Your task to perform on an android device: see sites visited before in the chrome app Image 0: 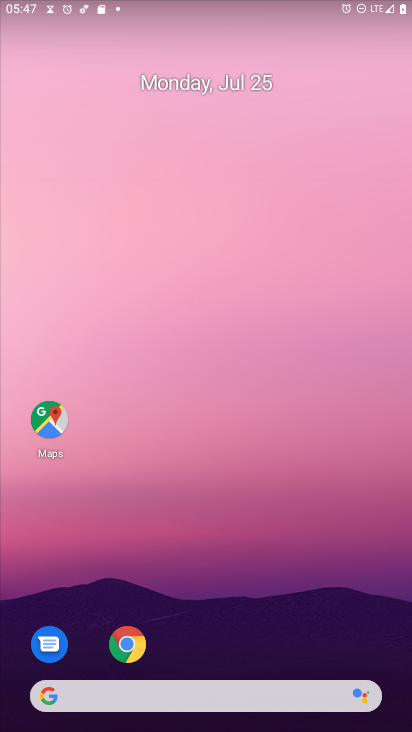
Step 0: press home button
Your task to perform on an android device: see sites visited before in the chrome app Image 1: 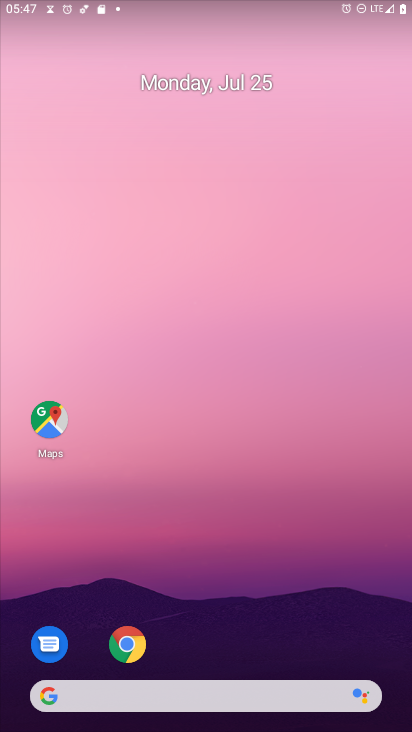
Step 1: drag from (285, 645) to (287, 182)
Your task to perform on an android device: see sites visited before in the chrome app Image 2: 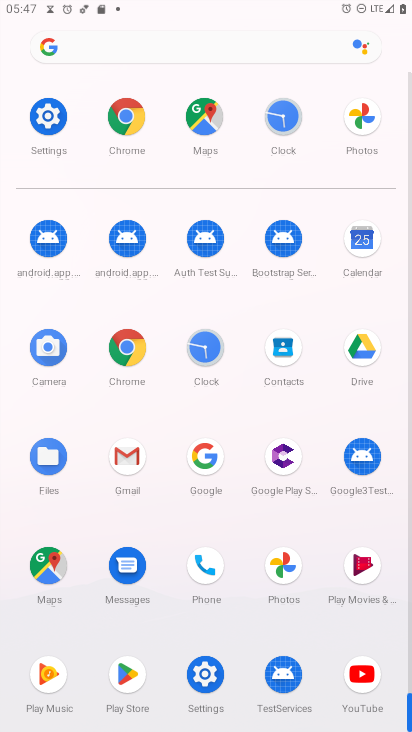
Step 2: click (123, 119)
Your task to perform on an android device: see sites visited before in the chrome app Image 3: 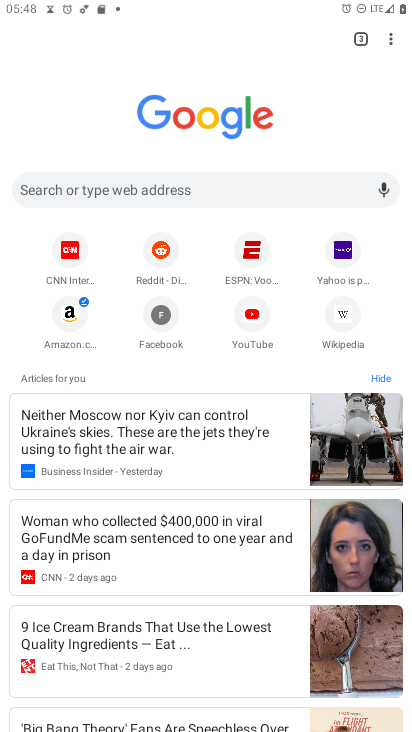
Step 3: task complete